Your task to perform on an android device: Search for the most popular coffee table on Crate & Barrel Image 0: 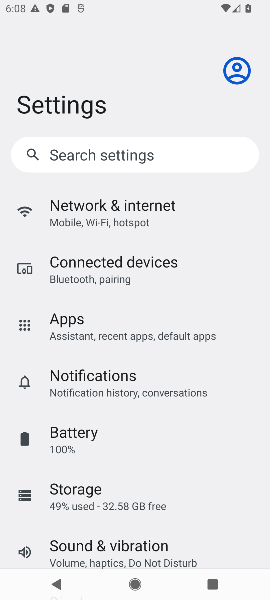
Step 0: press home button
Your task to perform on an android device: Search for the most popular coffee table on Crate & Barrel Image 1: 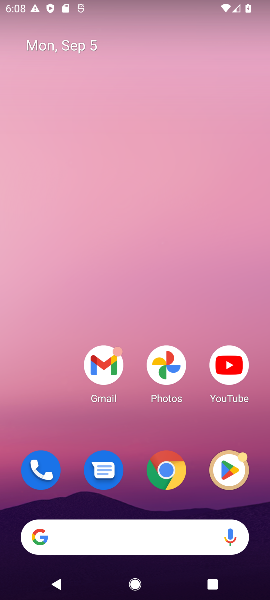
Step 1: click (162, 534)
Your task to perform on an android device: Search for the most popular coffee table on Crate & Barrel Image 2: 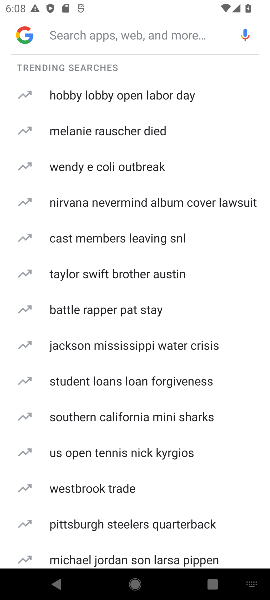
Step 2: type "crate & barrel"
Your task to perform on an android device: Search for the most popular coffee table on Crate & Barrel Image 3: 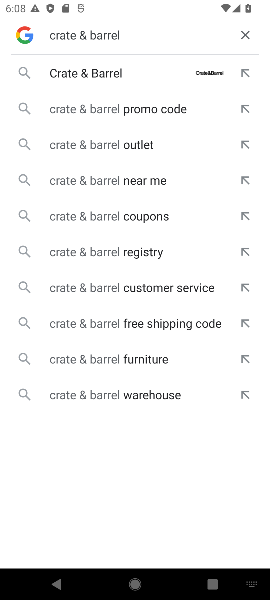
Step 3: click (95, 72)
Your task to perform on an android device: Search for the most popular coffee table on Crate & Barrel Image 4: 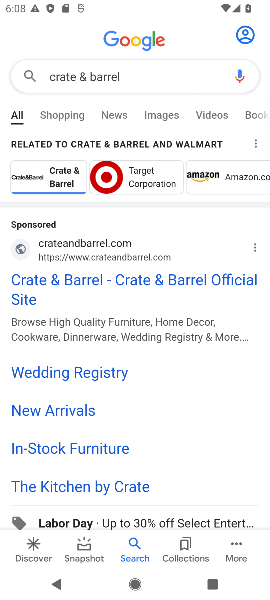
Step 4: click (110, 280)
Your task to perform on an android device: Search for the most popular coffee table on Crate & Barrel Image 5: 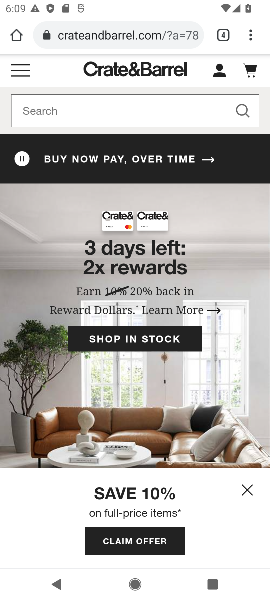
Step 5: click (105, 108)
Your task to perform on an android device: Search for the most popular coffee table on Crate & Barrel Image 6: 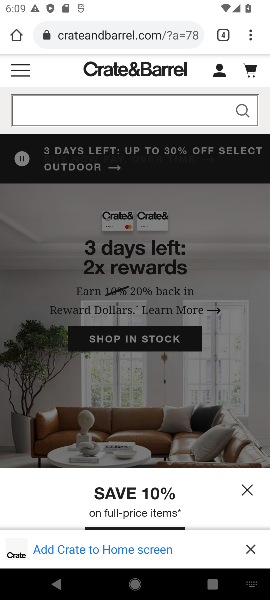
Step 6: type "most popular coffee table"
Your task to perform on an android device: Search for the most popular coffee table on Crate & Barrel Image 7: 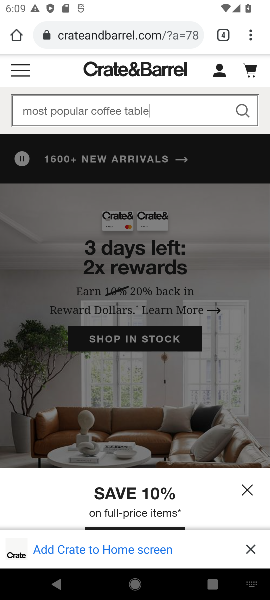
Step 7: click (237, 110)
Your task to perform on an android device: Search for the most popular coffee table on Crate & Barrel Image 8: 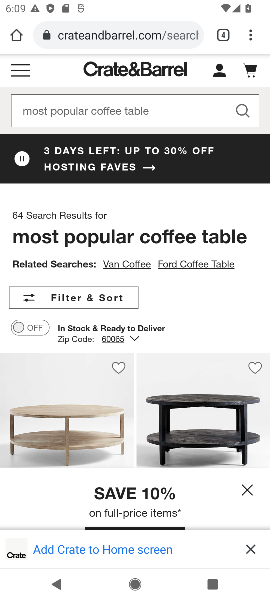
Step 8: task complete